Your task to perform on an android device: empty trash in the gmail app Image 0: 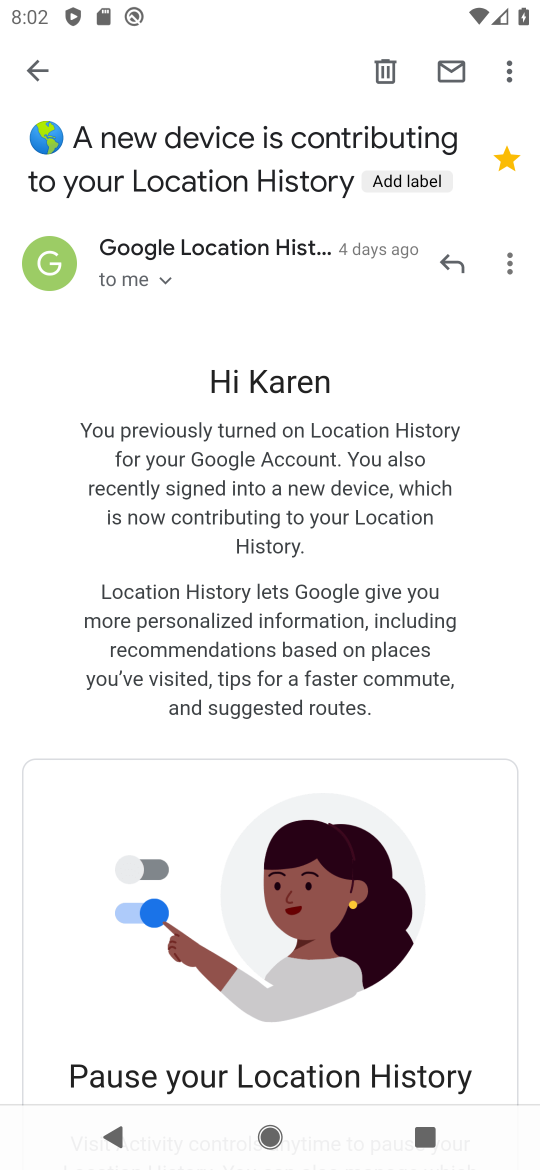
Step 0: click (42, 67)
Your task to perform on an android device: empty trash in the gmail app Image 1: 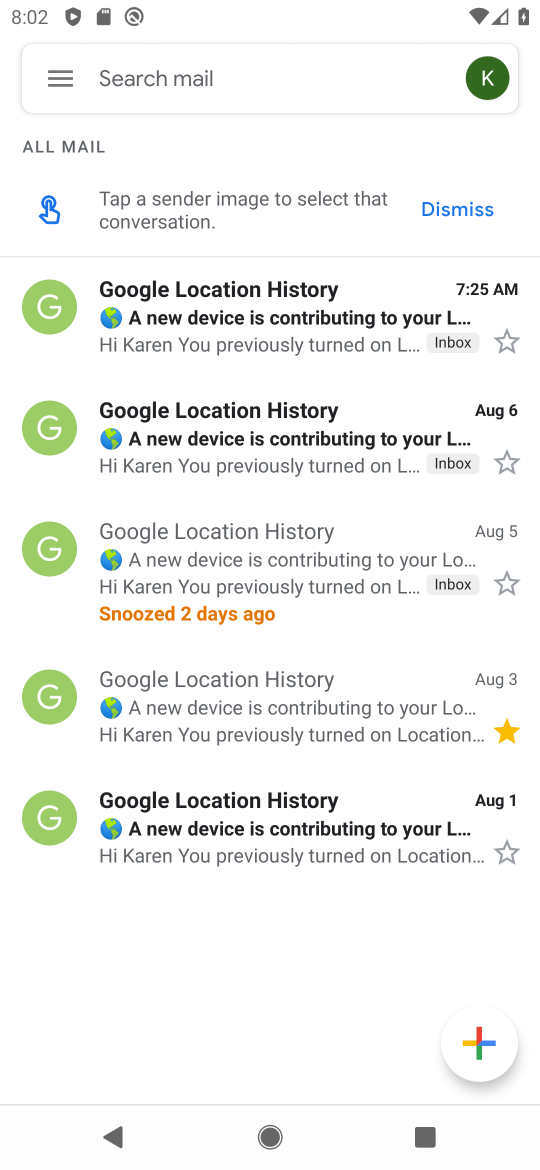
Step 1: click (59, 80)
Your task to perform on an android device: empty trash in the gmail app Image 2: 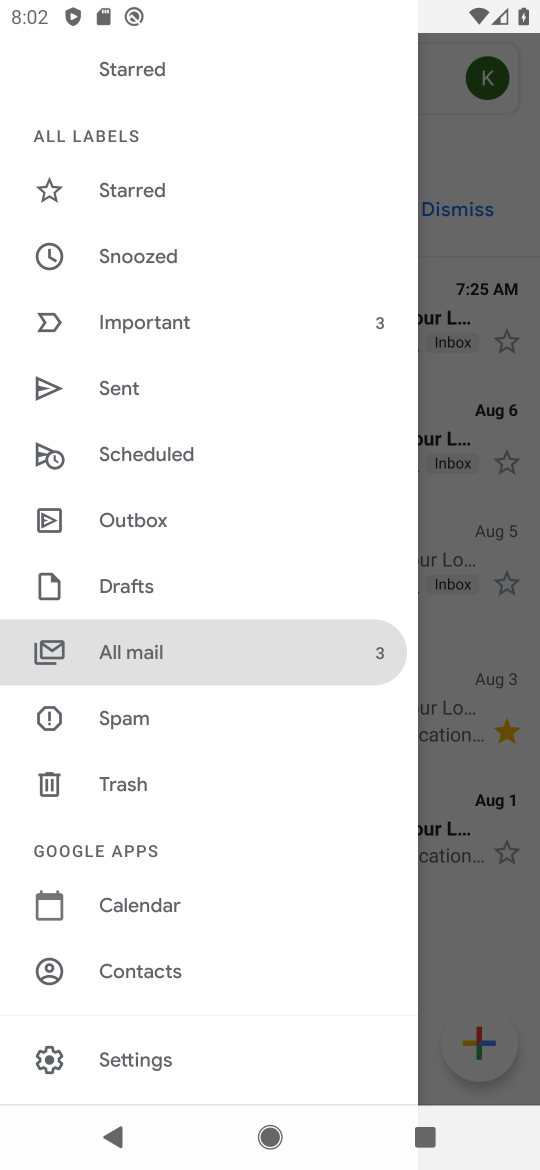
Step 2: click (177, 778)
Your task to perform on an android device: empty trash in the gmail app Image 3: 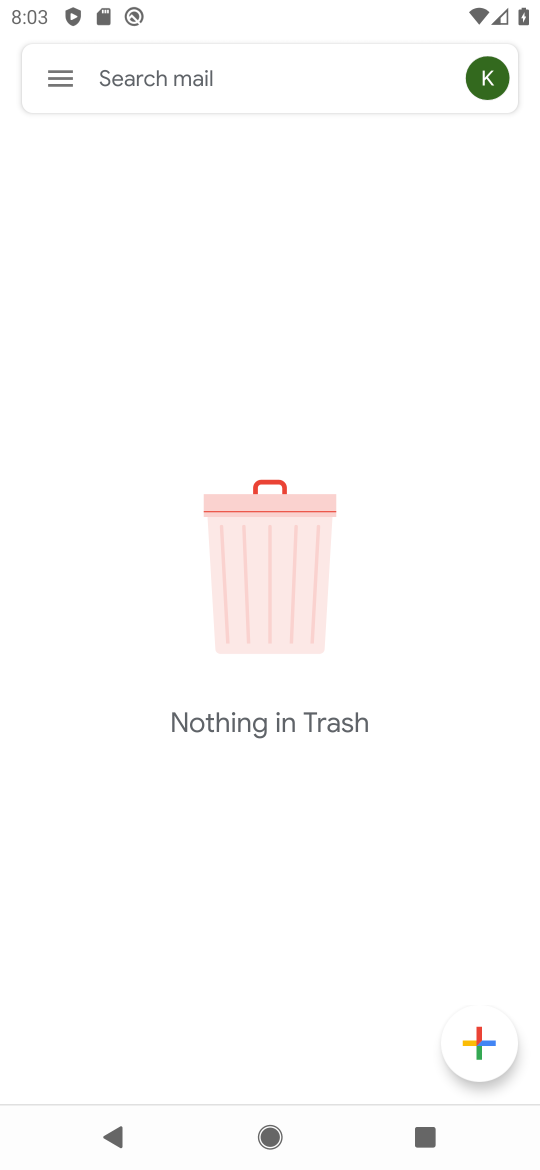
Step 3: task complete